Your task to perform on an android device: Go to notification settings Image 0: 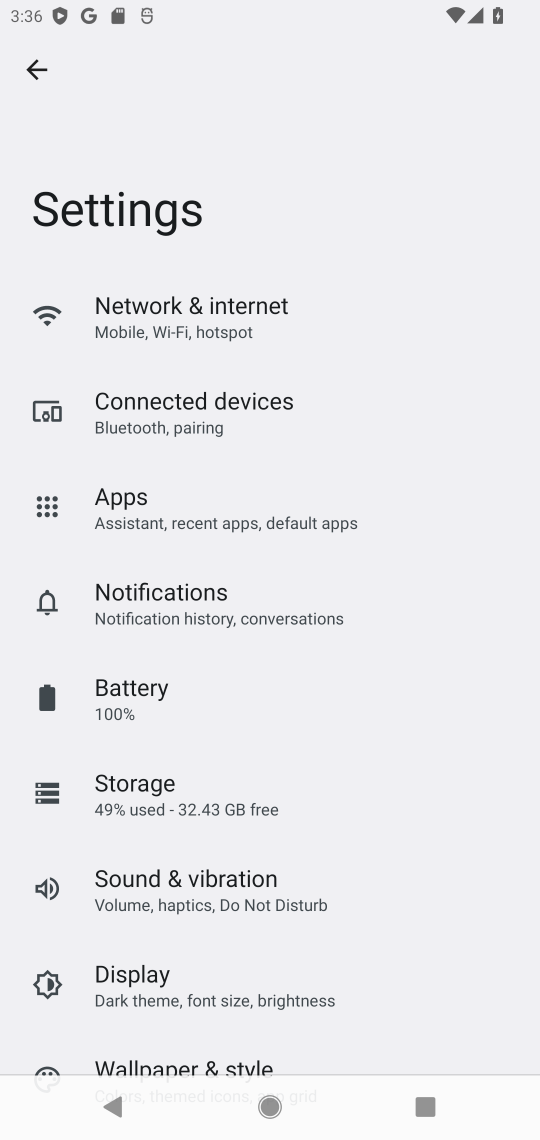
Step 0: drag from (272, 963) to (262, 379)
Your task to perform on an android device: Go to notification settings Image 1: 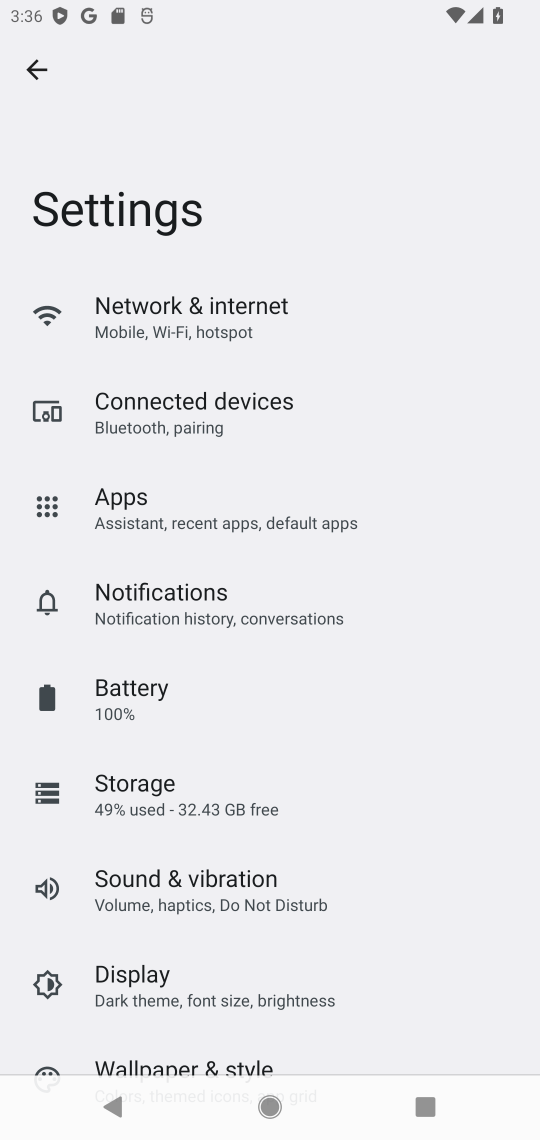
Step 1: drag from (216, 960) to (305, 173)
Your task to perform on an android device: Go to notification settings Image 2: 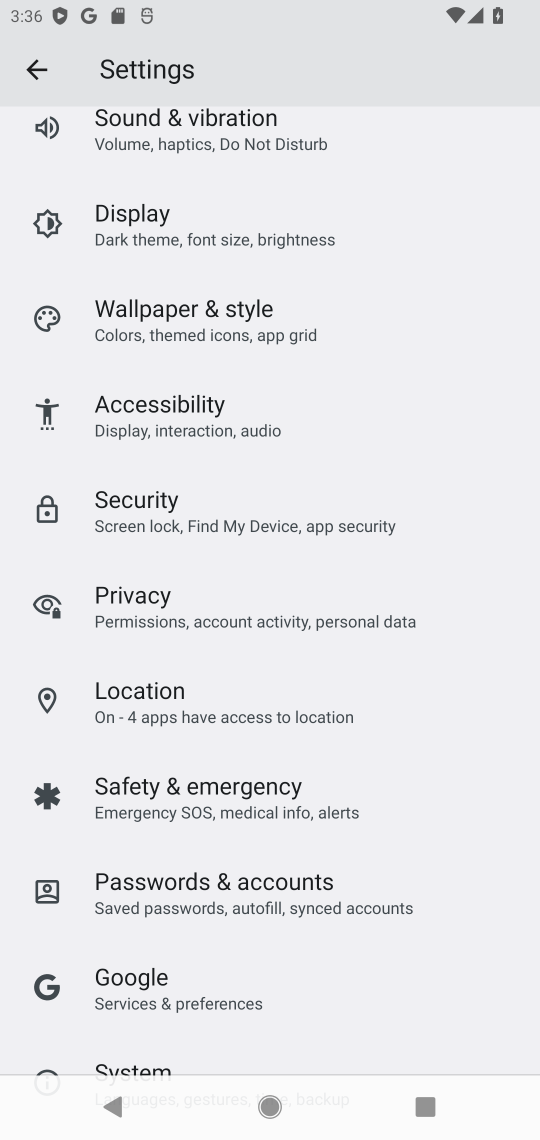
Step 2: drag from (231, 851) to (254, 542)
Your task to perform on an android device: Go to notification settings Image 3: 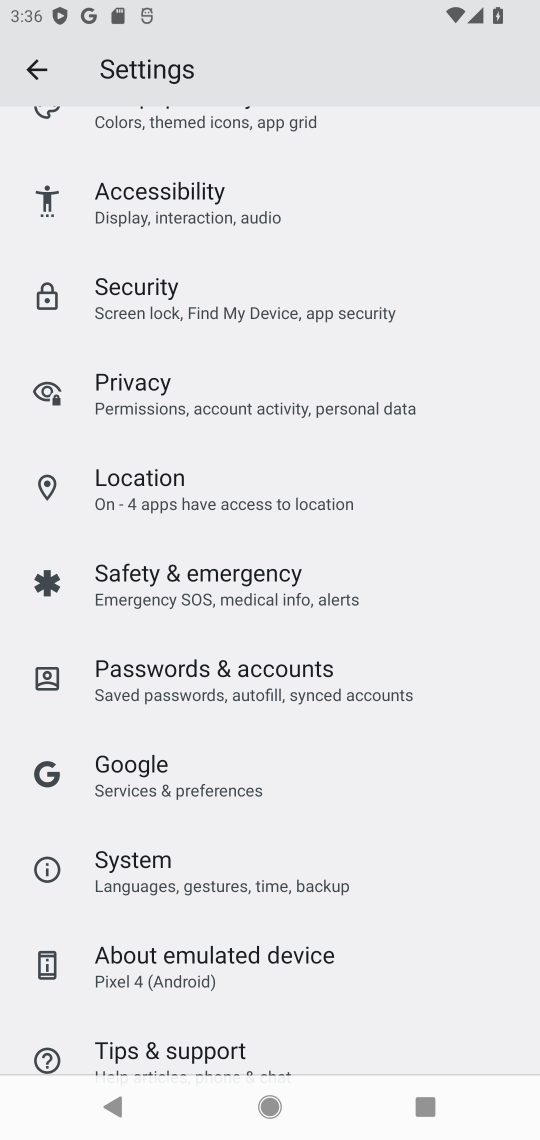
Step 3: drag from (242, 265) to (393, 1139)
Your task to perform on an android device: Go to notification settings Image 4: 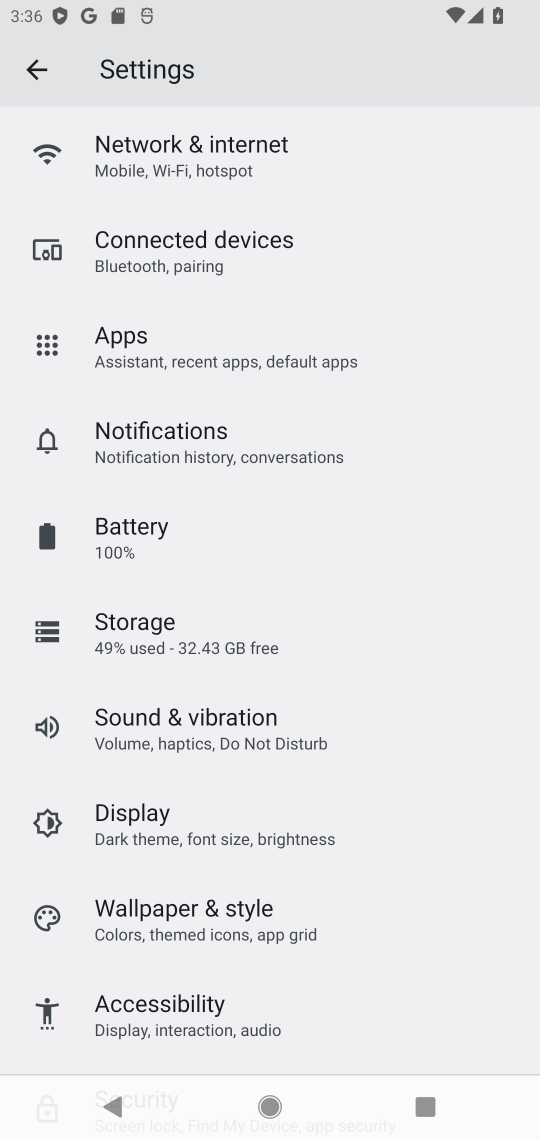
Step 4: click (182, 447)
Your task to perform on an android device: Go to notification settings Image 5: 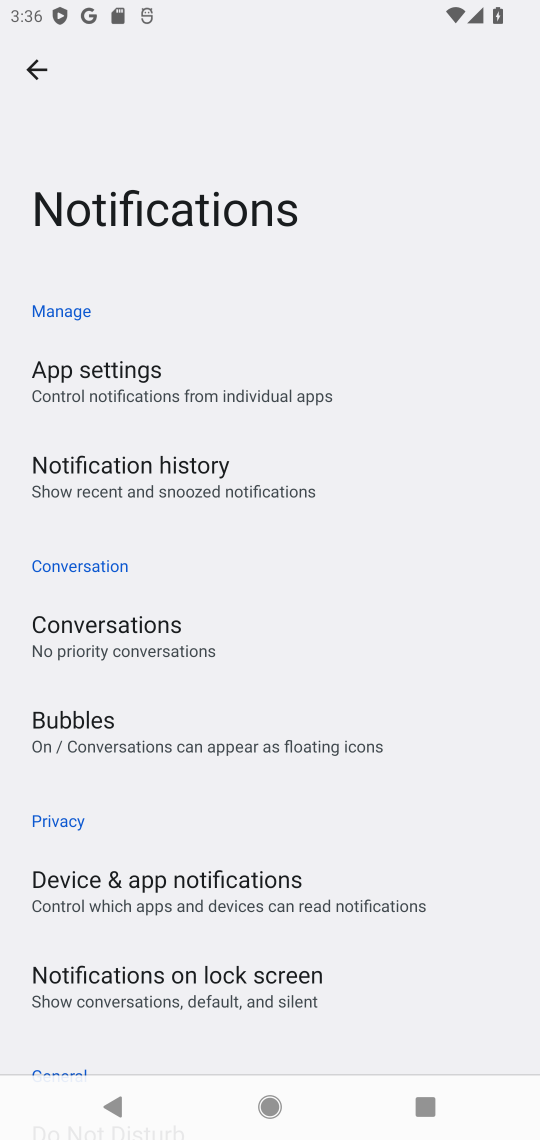
Step 5: task complete